Your task to perform on an android device: change timer sound Image 0: 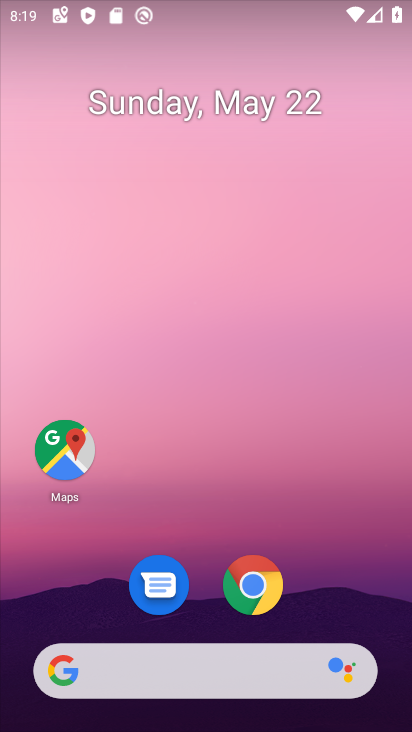
Step 0: drag from (213, 476) to (171, 37)
Your task to perform on an android device: change timer sound Image 1: 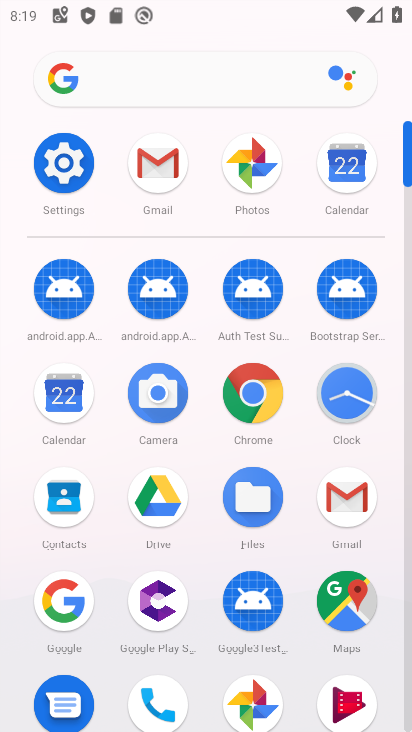
Step 1: click (326, 399)
Your task to perform on an android device: change timer sound Image 2: 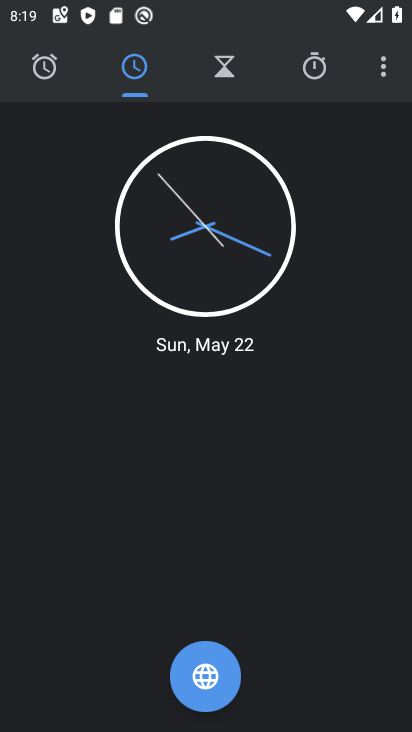
Step 2: click (376, 62)
Your task to perform on an android device: change timer sound Image 3: 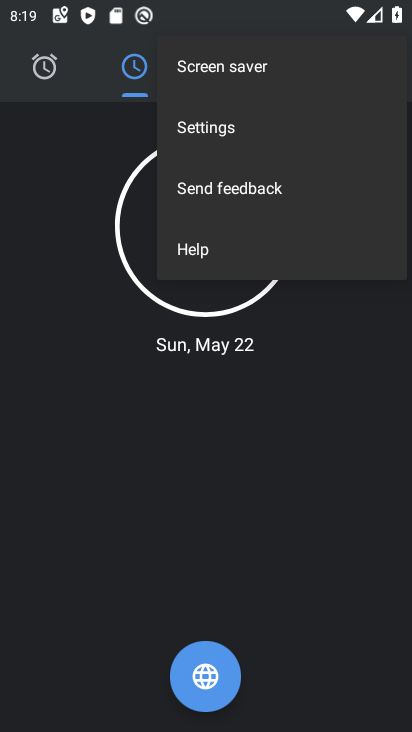
Step 3: click (275, 116)
Your task to perform on an android device: change timer sound Image 4: 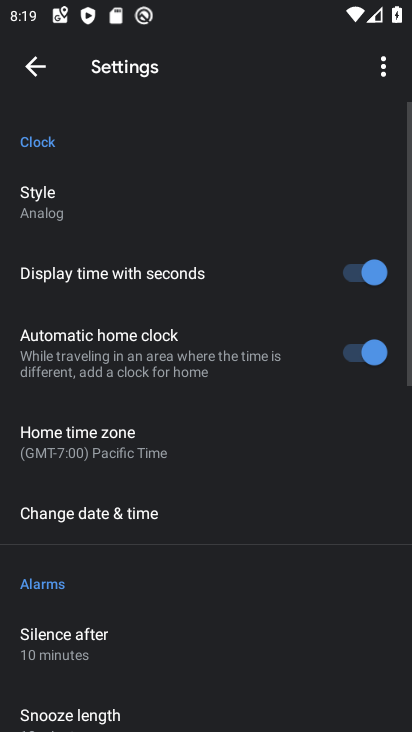
Step 4: drag from (277, 520) to (261, 7)
Your task to perform on an android device: change timer sound Image 5: 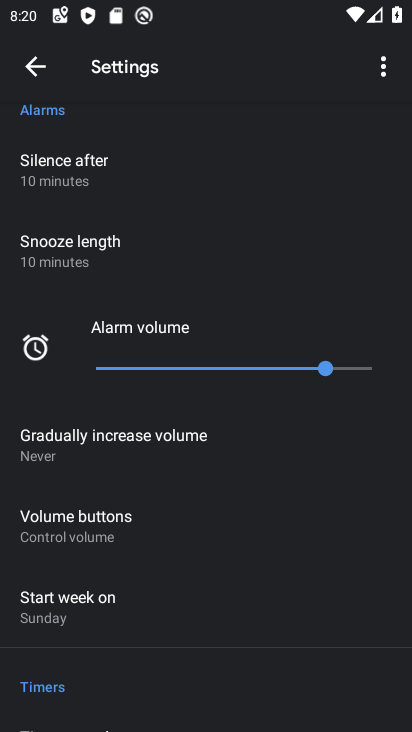
Step 5: drag from (178, 543) to (235, 236)
Your task to perform on an android device: change timer sound Image 6: 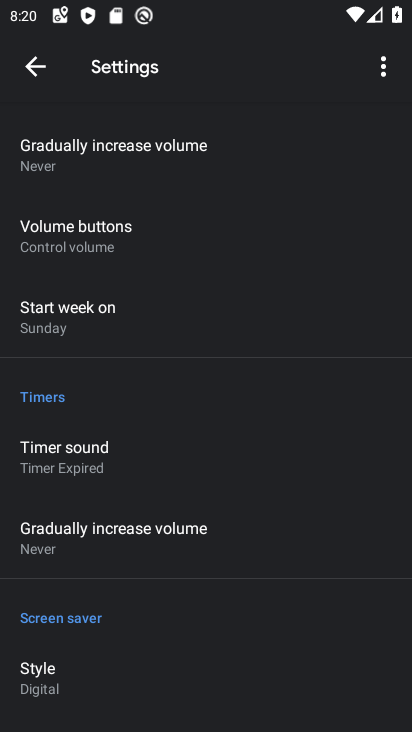
Step 6: click (89, 453)
Your task to perform on an android device: change timer sound Image 7: 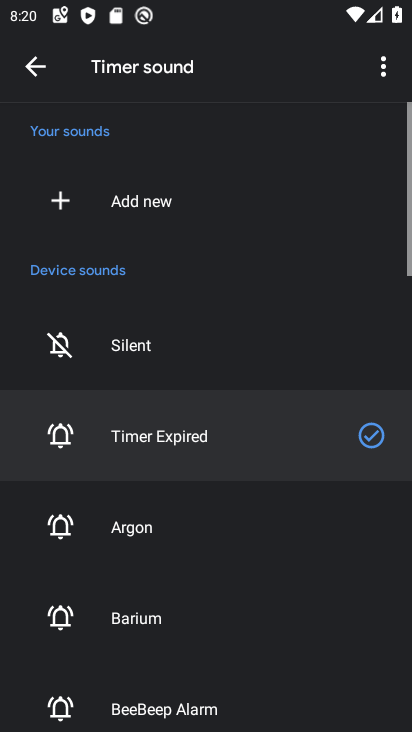
Step 7: click (95, 524)
Your task to perform on an android device: change timer sound Image 8: 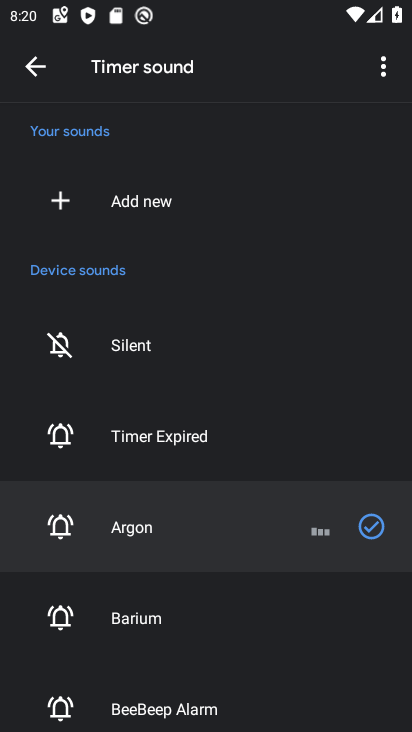
Step 8: task complete